Your task to perform on an android device: Set the phone to "Do not disturb". Image 0: 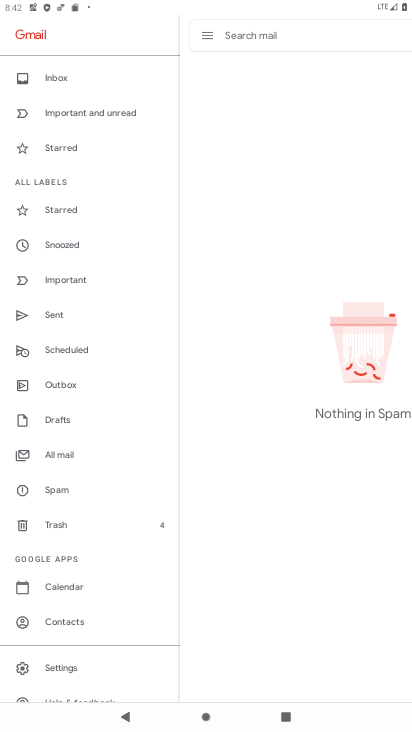
Step 0: drag from (146, 283) to (152, 490)
Your task to perform on an android device: Set the phone to "Do not disturb". Image 1: 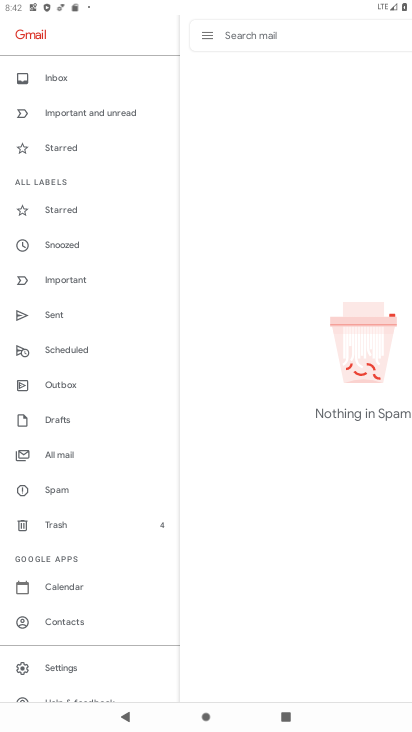
Step 1: drag from (151, 2) to (192, 500)
Your task to perform on an android device: Set the phone to "Do not disturb". Image 2: 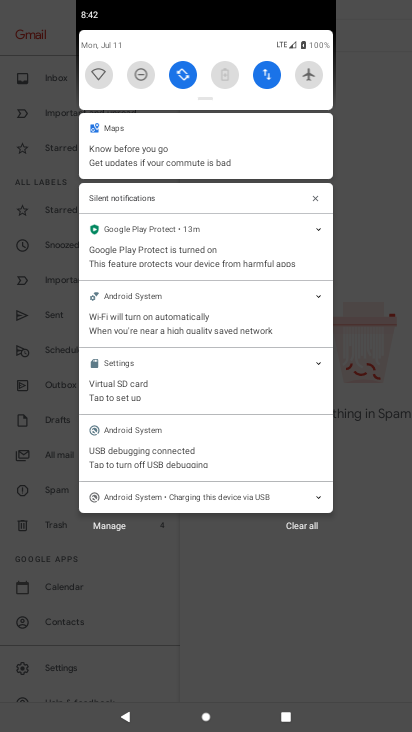
Step 2: click (145, 77)
Your task to perform on an android device: Set the phone to "Do not disturb". Image 3: 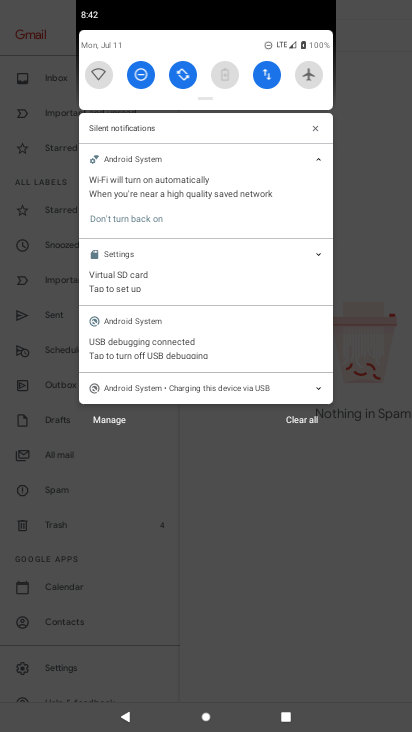
Step 3: task complete